Your task to perform on an android device: Open eBay Image 0: 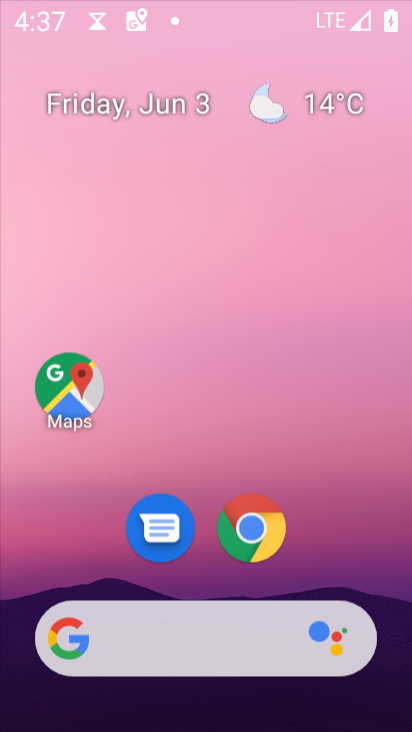
Step 0: click (343, 208)
Your task to perform on an android device: Open eBay Image 1: 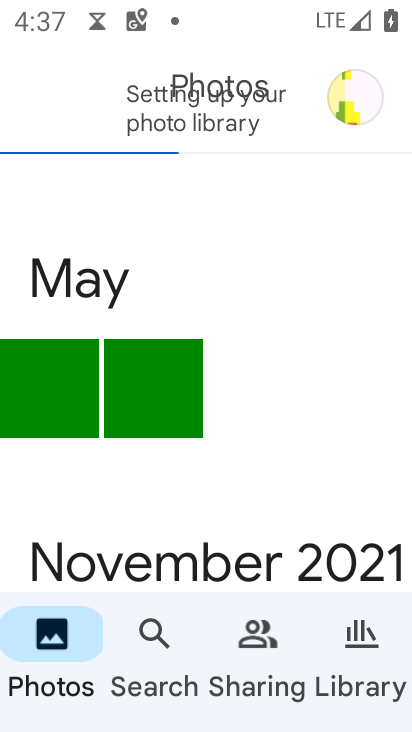
Step 1: press home button
Your task to perform on an android device: Open eBay Image 2: 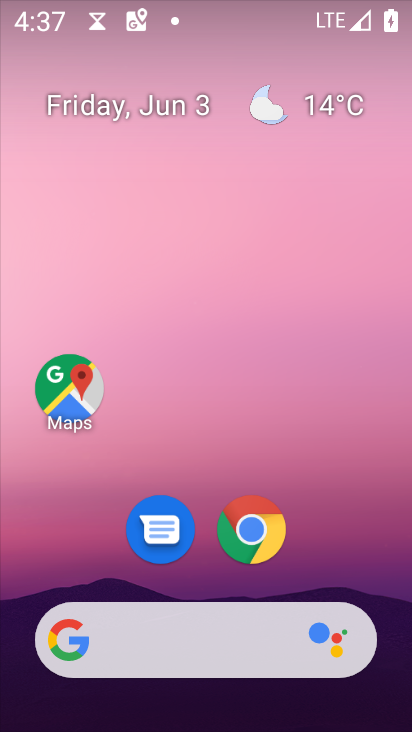
Step 2: drag from (393, 581) to (333, 16)
Your task to perform on an android device: Open eBay Image 3: 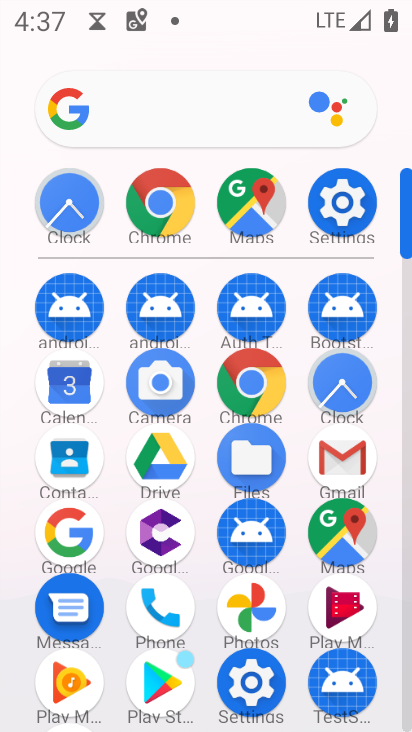
Step 3: click (165, 194)
Your task to perform on an android device: Open eBay Image 4: 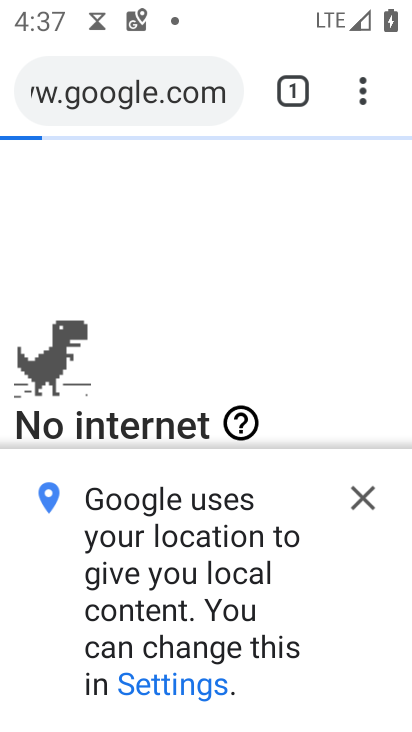
Step 4: click (147, 100)
Your task to perform on an android device: Open eBay Image 5: 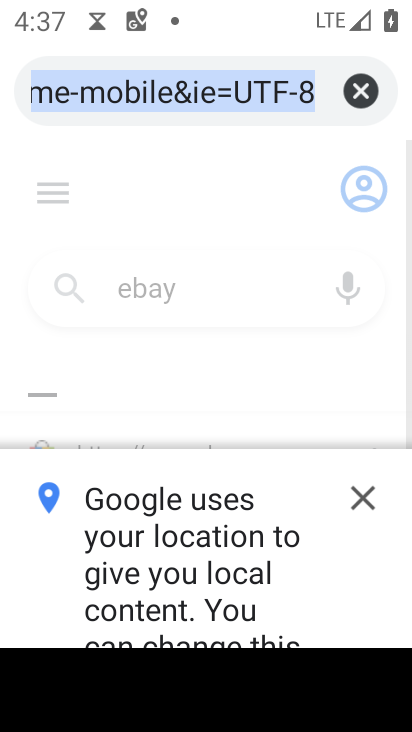
Step 5: click (371, 498)
Your task to perform on an android device: Open eBay Image 6: 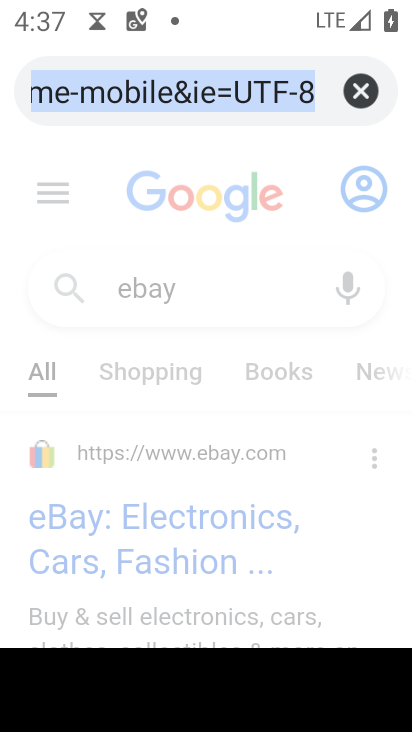
Step 6: drag from (330, 566) to (263, 197)
Your task to perform on an android device: Open eBay Image 7: 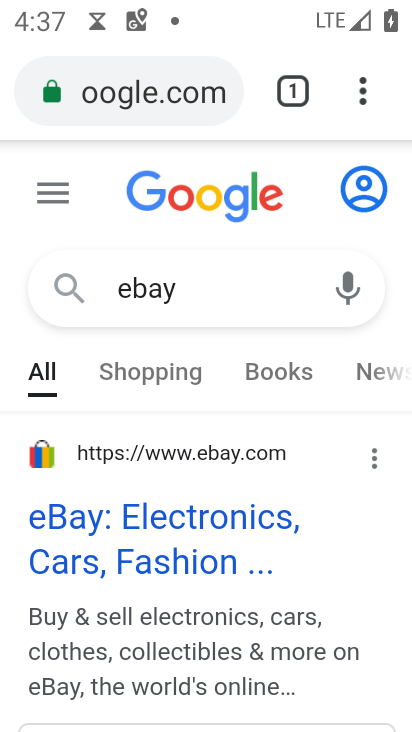
Step 7: click (162, 530)
Your task to perform on an android device: Open eBay Image 8: 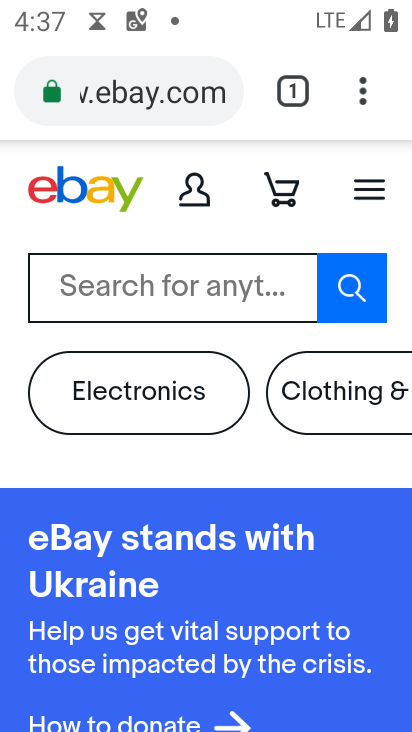
Step 8: task complete